Your task to perform on an android device: turn on priority inbox in the gmail app Image 0: 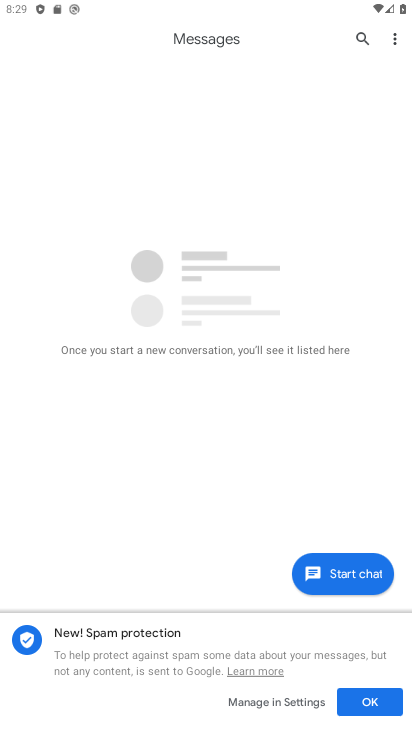
Step 0: press home button
Your task to perform on an android device: turn on priority inbox in the gmail app Image 1: 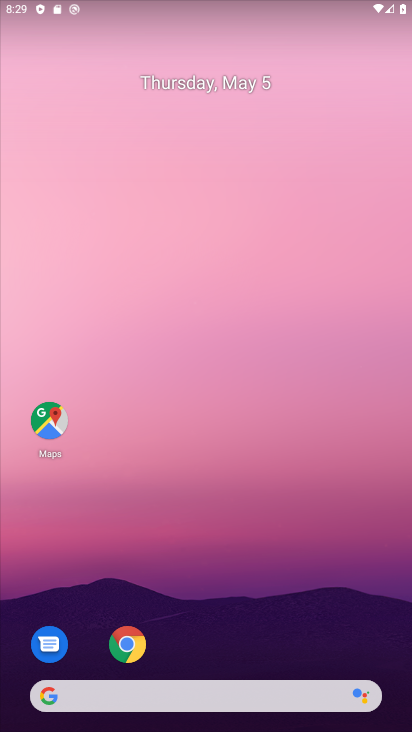
Step 1: drag from (321, 559) to (106, 16)
Your task to perform on an android device: turn on priority inbox in the gmail app Image 2: 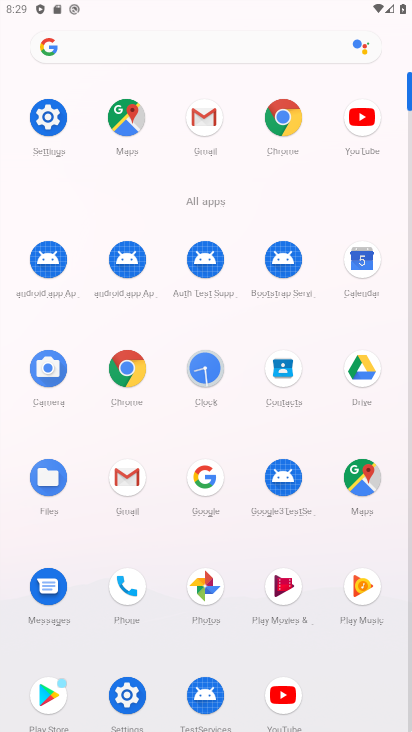
Step 2: click (203, 120)
Your task to perform on an android device: turn on priority inbox in the gmail app Image 3: 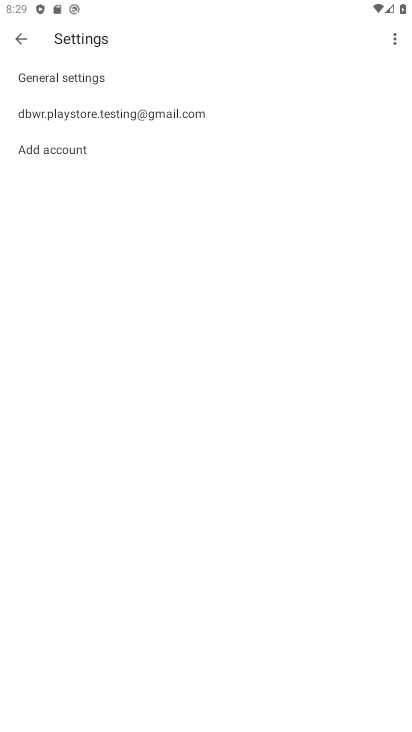
Step 3: click (88, 122)
Your task to perform on an android device: turn on priority inbox in the gmail app Image 4: 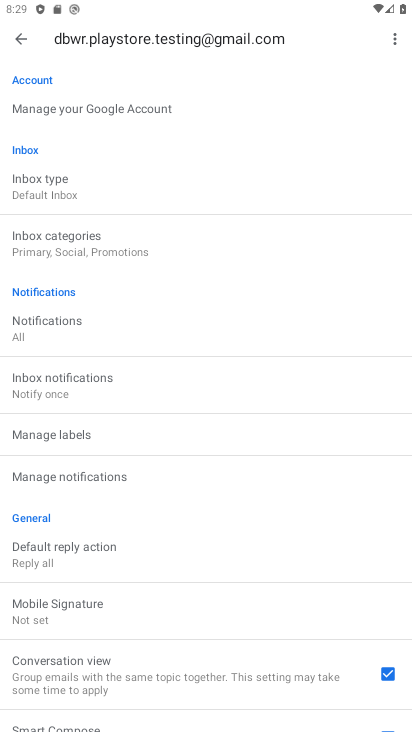
Step 4: drag from (86, 612) to (118, 214)
Your task to perform on an android device: turn on priority inbox in the gmail app Image 5: 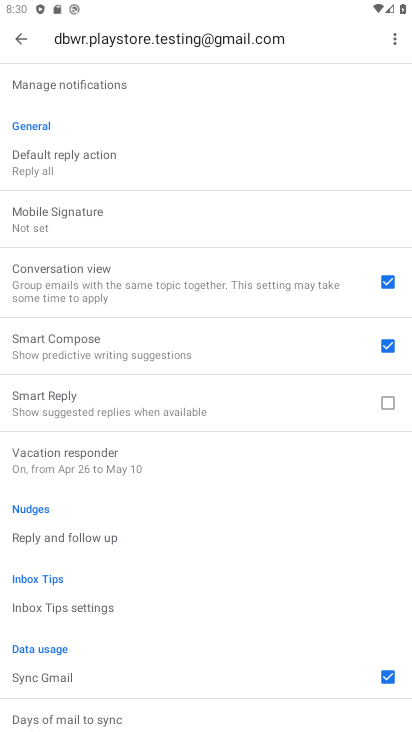
Step 5: drag from (121, 620) to (101, 216)
Your task to perform on an android device: turn on priority inbox in the gmail app Image 6: 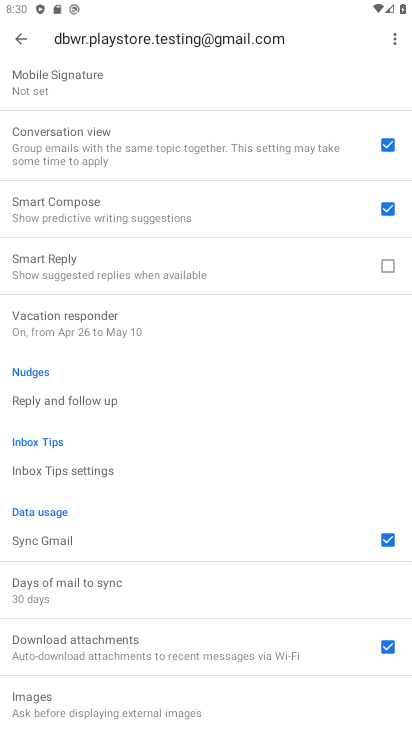
Step 6: drag from (165, 205) to (108, 627)
Your task to perform on an android device: turn on priority inbox in the gmail app Image 7: 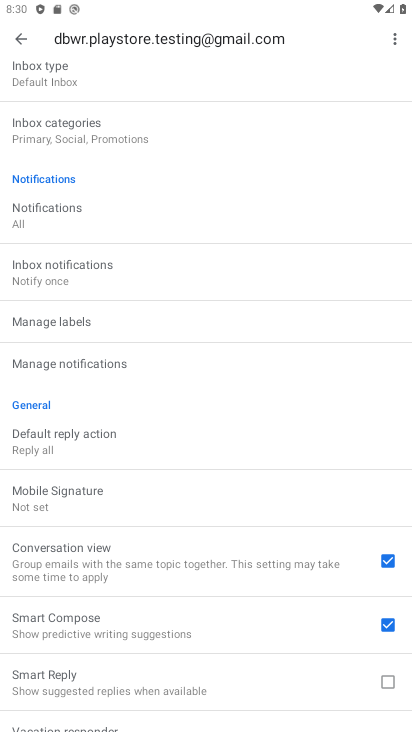
Step 7: drag from (155, 115) to (152, 575)
Your task to perform on an android device: turn on priority inbox in the gmail app Image 8: 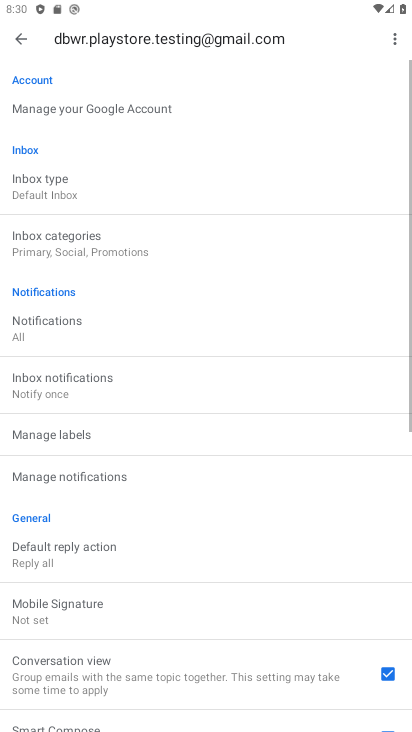
Step 8: drag from (220, 145) to (168, 562)
Your task to perform on an android device: turn on priority inbox in the gmail app Image 9: 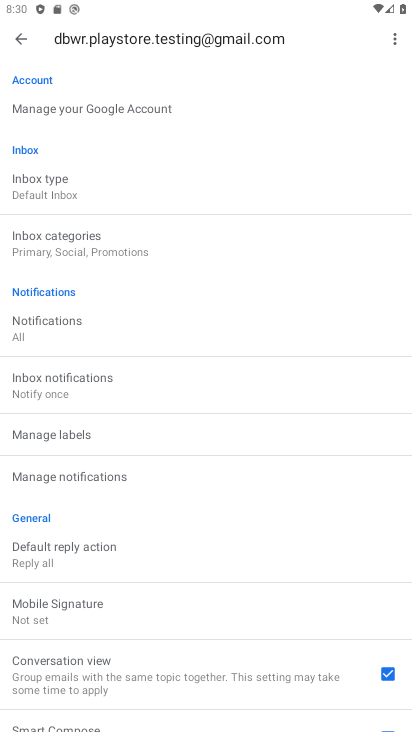
Step 9: click (38, 181)
Your task to perform on an android device: turn on priority inbox in the gmail app Image 10: 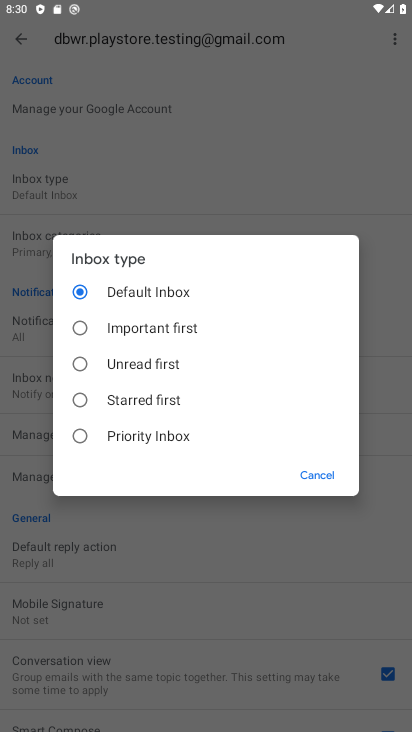
Step 10: click (105, 434)
Your task to perform on an android device: turn on priority inbox in the gmail app Image 11: 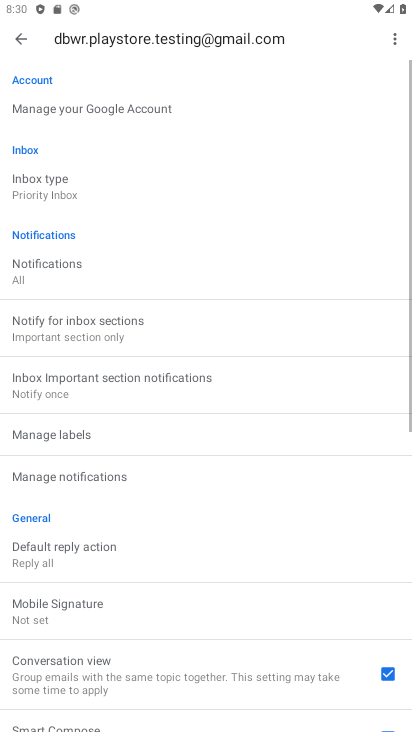
Step 11: task complete